Your task to perform on an android device: turn off location Image 0: 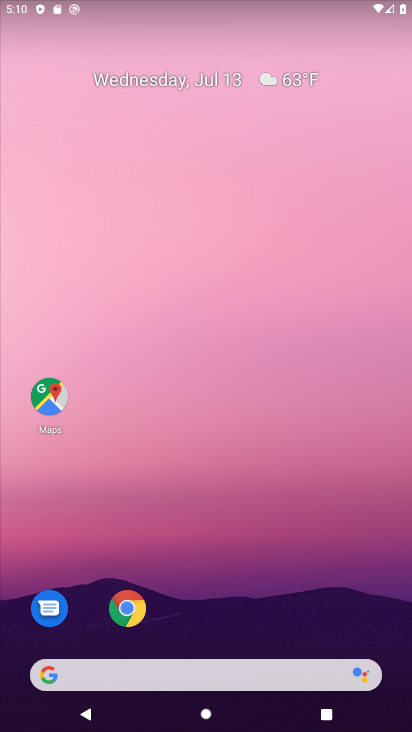
Step 0: drag from (288, 601) to (203, 182)
Your task to perform on an android device: turn off location Image 1: 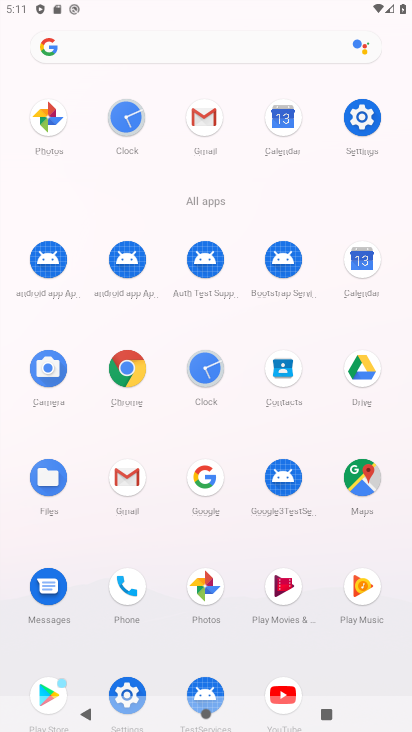
Step 1: click (351, 122)
Your task to perform on an android device: turn off location Image 2: 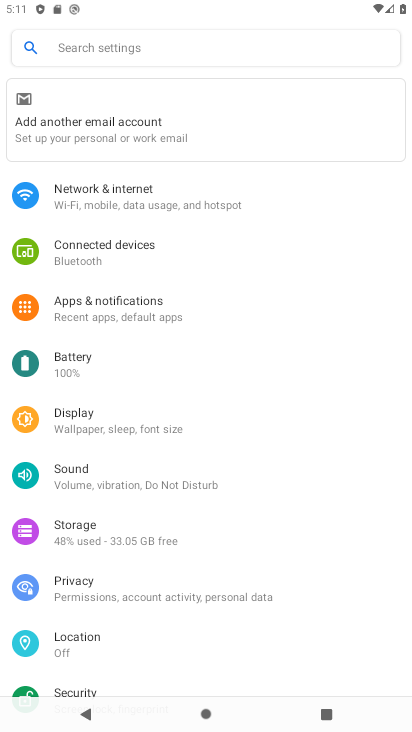
Step 2: click (88, 655)
Your task to perform on an android device: turn off location Image 3: 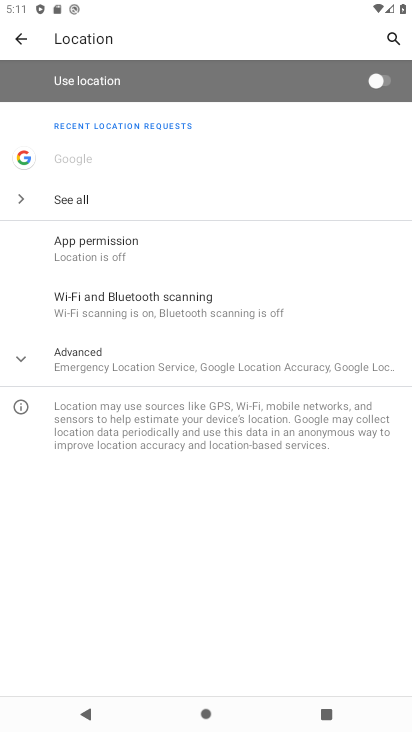
Step 3: task complete